Your task to perform on an android device: Go to sound settings Image 0: 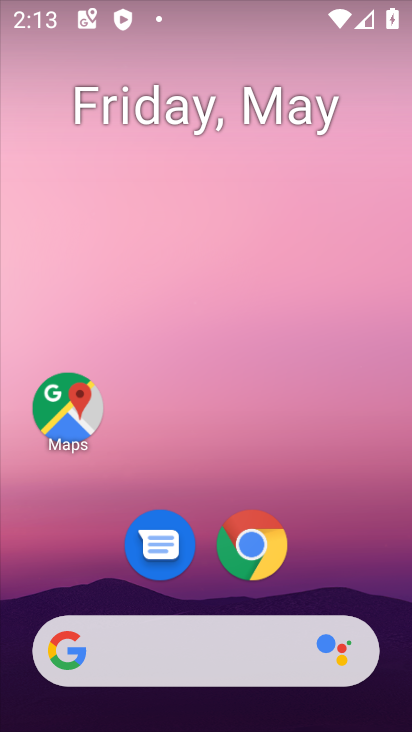
Step 0: drag from (95, 620) to (181, 208)
Your task to perform on an android device: Go to sound settings Image 1: 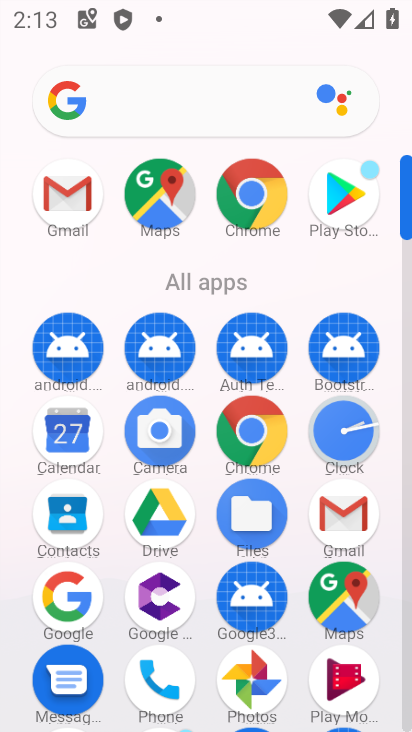
Step 1: drag from (240, 634) to (296, 382)
Your task to perform on an android device: Go to sound settings Image 2: 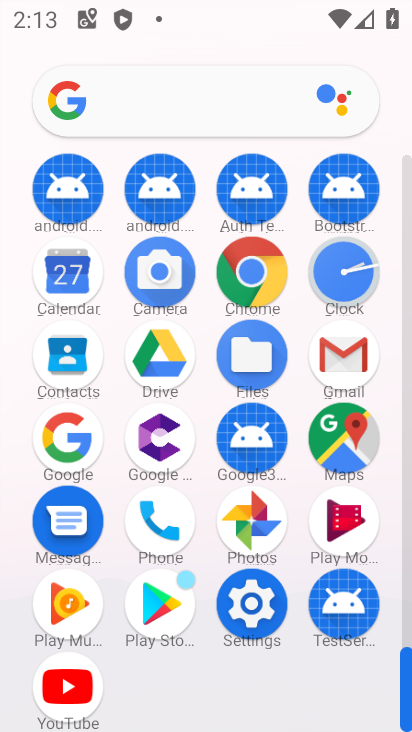
Step 2: click (242, 598)
Your task to perform on an android device: Go to sound settings Image 3: 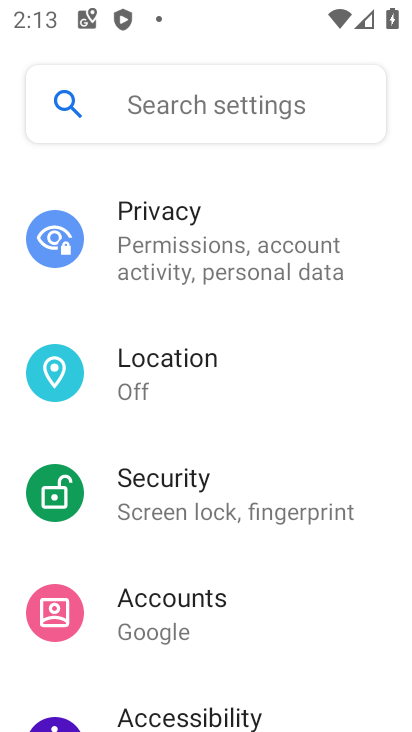
Step 3: drag from (289, 727) to (377, 362)
Your task to perform on an android device: Go to sound settings Image 4: 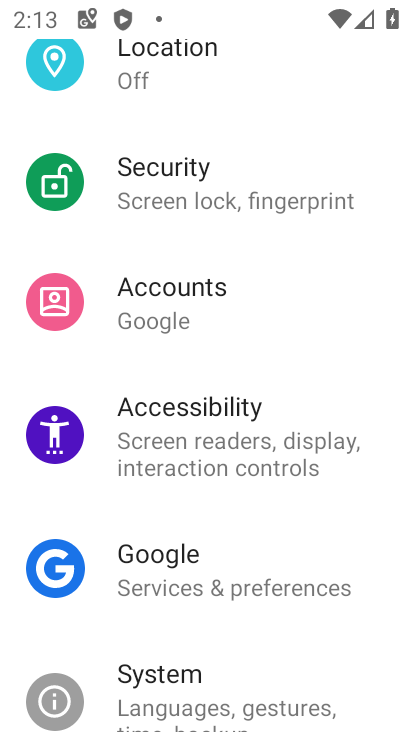
Step 4: drag from (140, 660) to (206, 386)
Your task to perform on an android device: Go to sound settings Image 5: 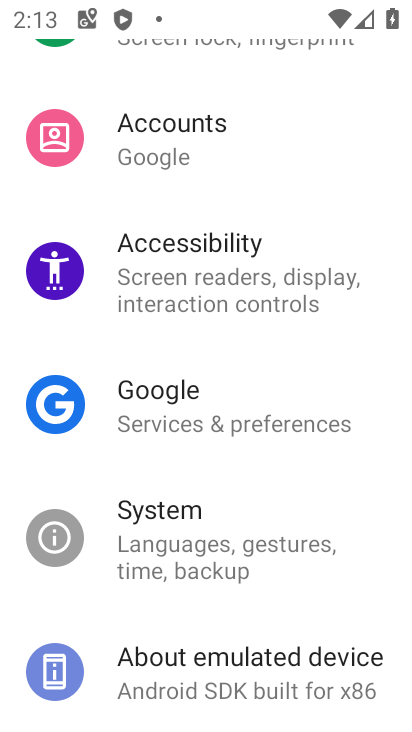
Step 5: drag from (227, 246) to (233, 643)
Your task to perform on an android device: Go to sound settings Image 6: 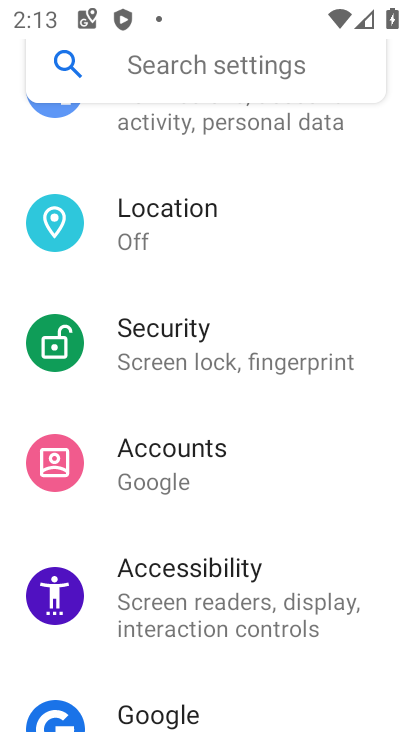
Step 6: drag from (243, 223) to (236, 663)
Your task to perform on an android device: Go to sound settings Image 7: 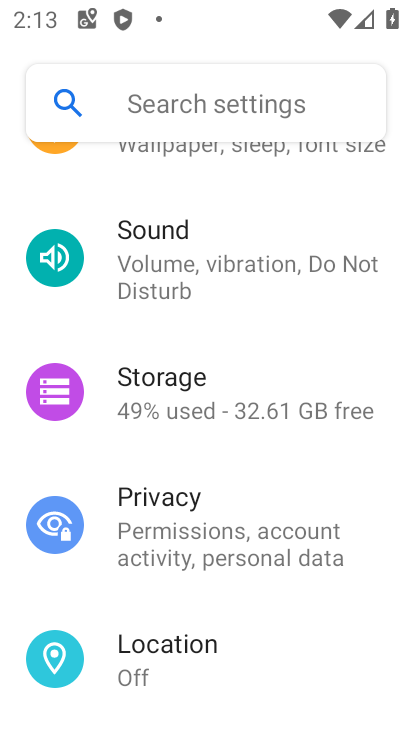
Step 7: drag from (246, 202) to (241, 537)
Your task to perform on an android device: Go to sound settings Image 8: 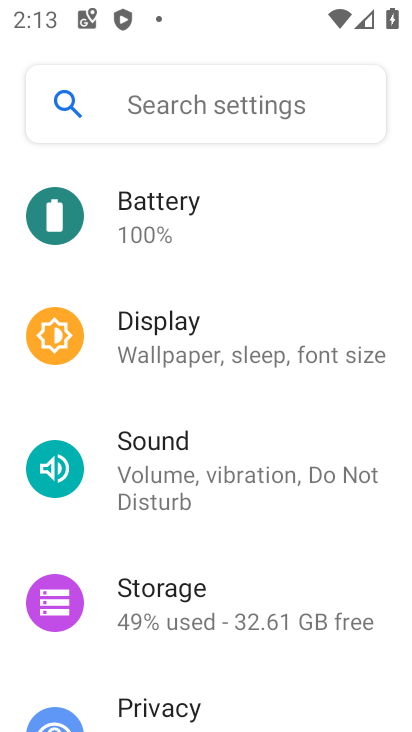
Step 8: click (210, 505)
Your task to perform on an android device: Go to sound settings Image 9: 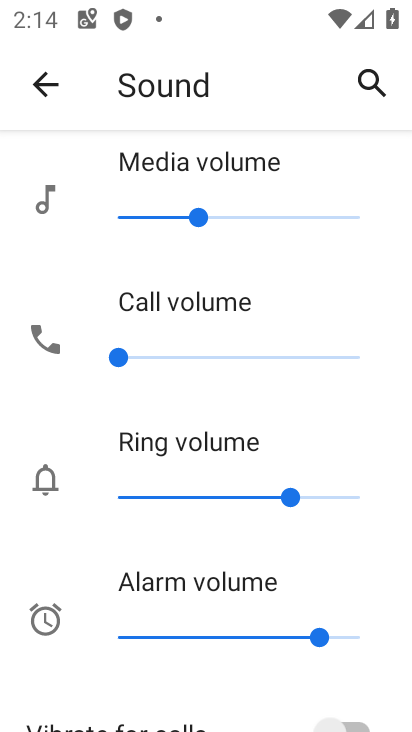
Step 9: task complete